Your task to perform on an android device: open the mobile data screen to see how much data has been used Image 0: 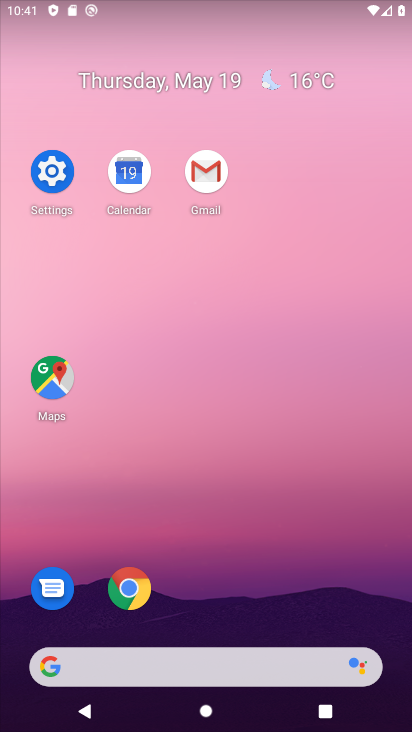
Step 0: click (48, 165)
Your task to perform on an android device: open the mobile data screen to see how much data has been used Image 1: 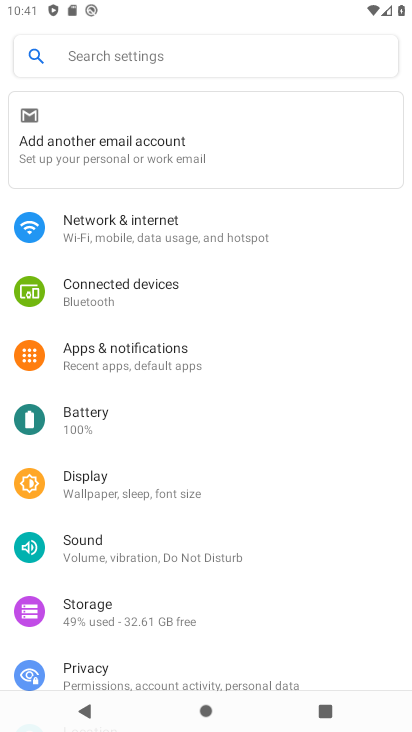
Step 1: click (172, 241)
Your task to perform on an android device: open the mobile data screen to see how much data has been used Image 2: 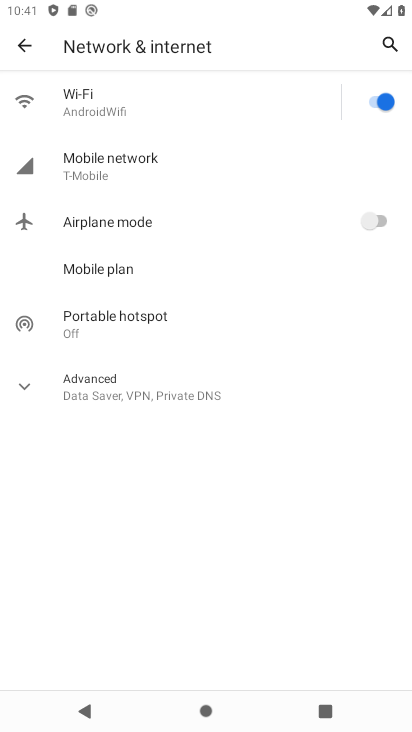
Step 2: click (119, 175)
Your task to perform on an android device: open the mobile data screen to see how much data has been used Image 3: 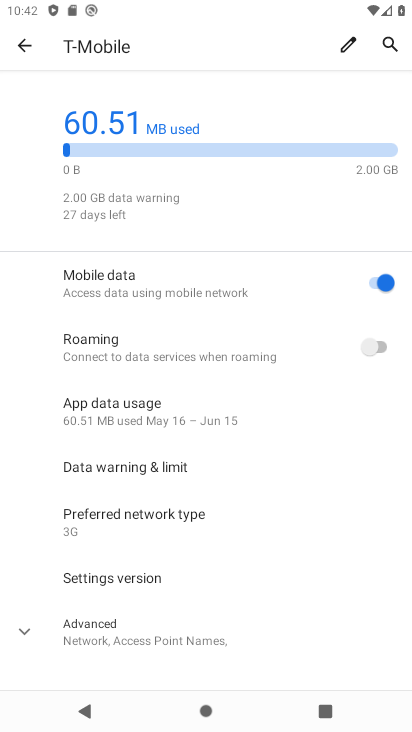
Step 3: click (134, 400)
Your task to perform on an android device: open the mobile data screen to see how much data has been used Image 4: 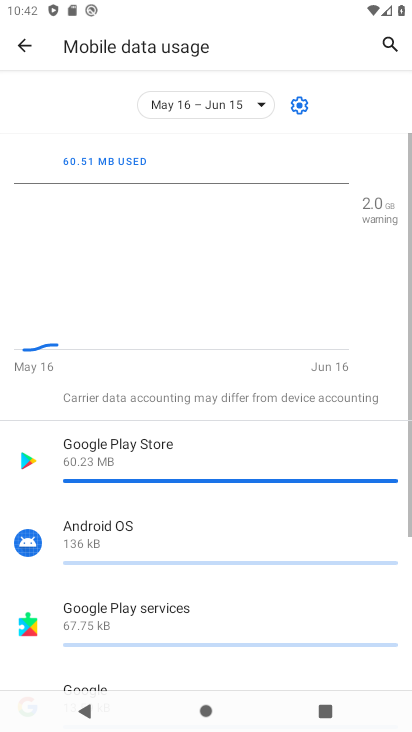
Step 4: task complete